Your task to perform on an android device: Go to accessibility settings Image 0: 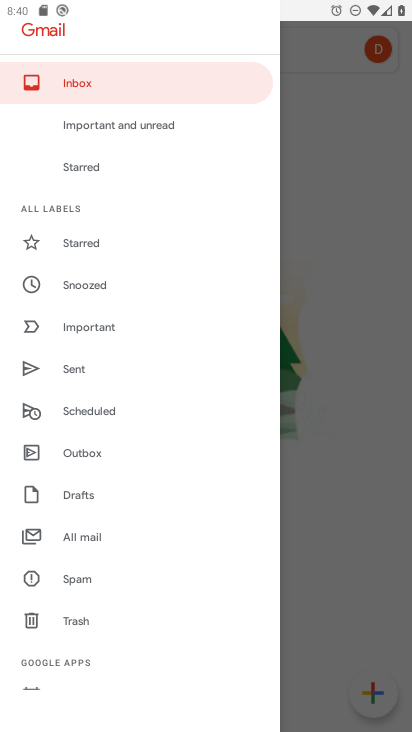
Step 0: press home button
Your task to perform on an android device: Go to accessibility settings Image 1: 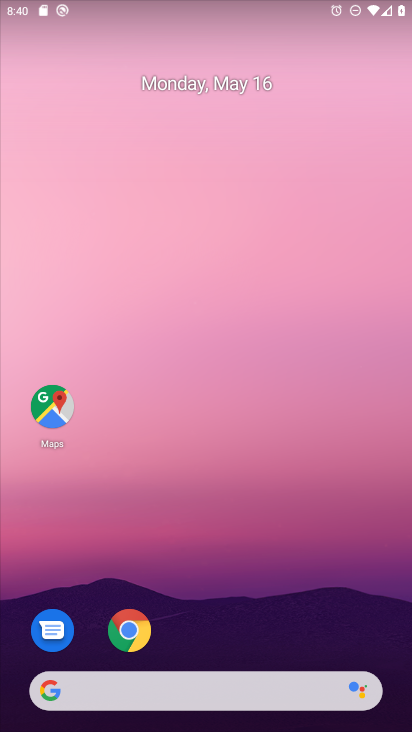
Step 1: drag from (218, 594) to (208, 109)
Your task to perform on an android device: Go to accessibility settings Image 2: 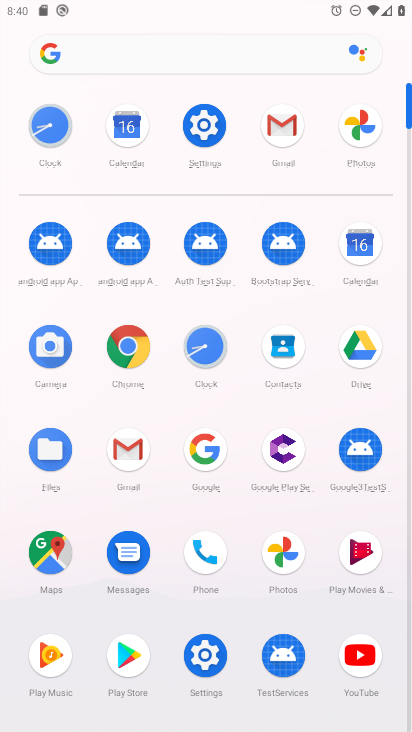
Step 2: click (196, 126)
Your task to perform on an android device: Go to accessibility settings Image 3: 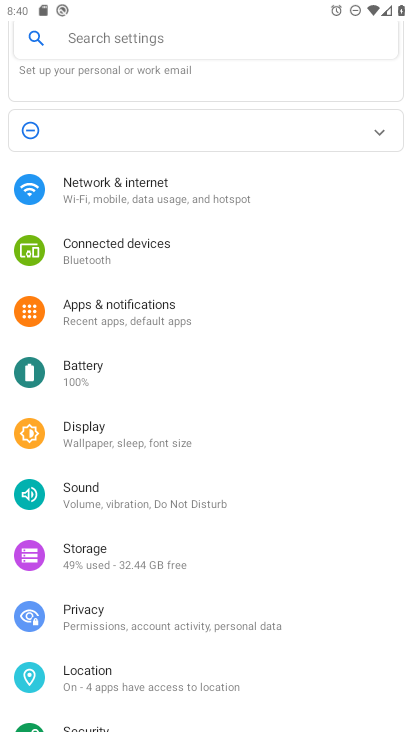
Step 3: drag from (242, 549) to (270, 283)
Your task to perform on an android device: Go to accessibility settings Image 4: 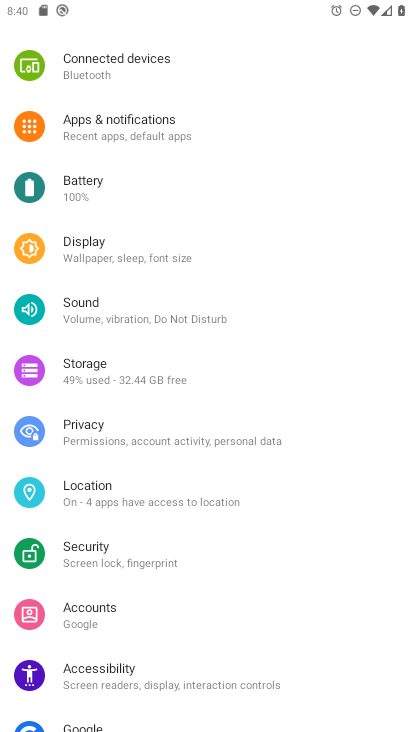
Step 4: drag from (152, 613) to (192, 254)
Your task to perform on an android device: Go to accessibility settings Image 5: 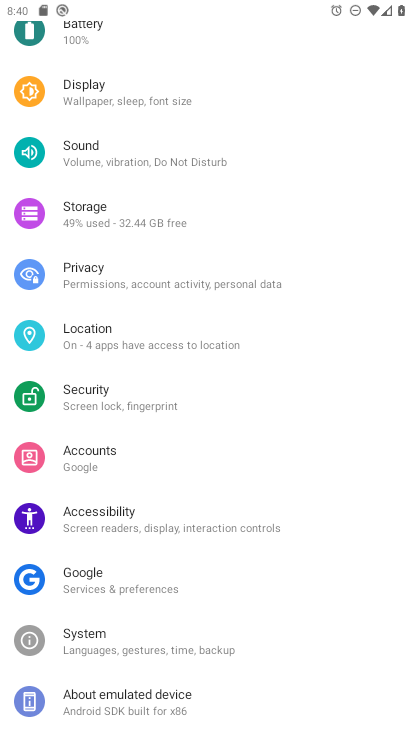
Step 5: click (131, 524)
Your task to perform on an android device: Go to accessibility settings Image 6: 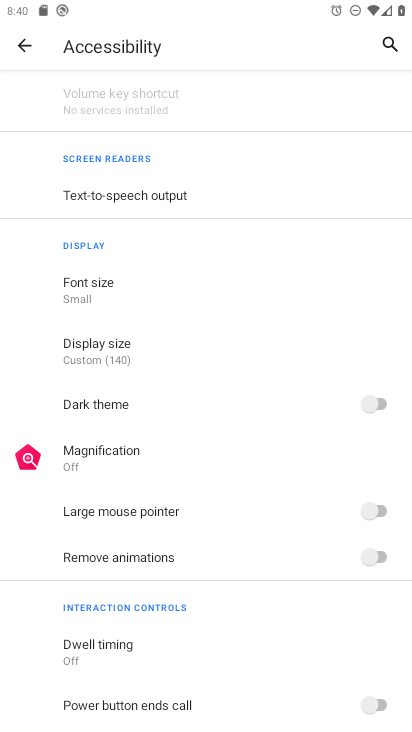
Step 6: task complete